Your task to perform on an android device: turn off airplane mode Image 0: 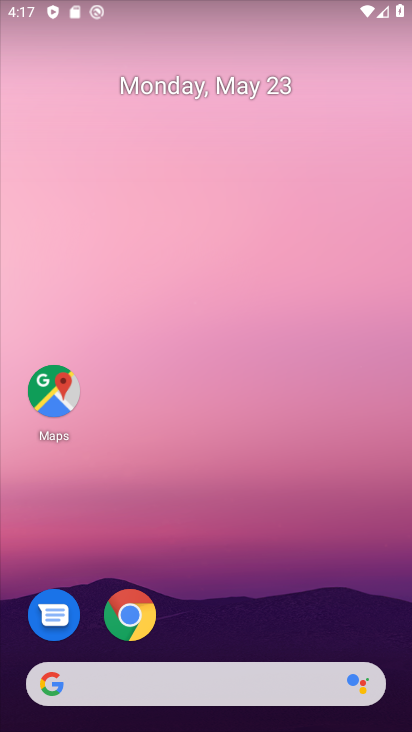
Step 0: drag from (220, 611) to (226, 87)
Your task to perform on an android device: turn off airplane mode Image 1: 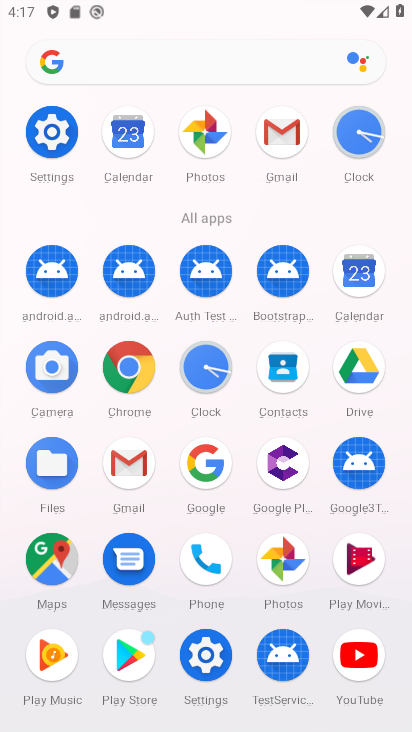
Step 1: click (60, 135)
Your task to perform on an android device: turn off airplane mode Image 2: 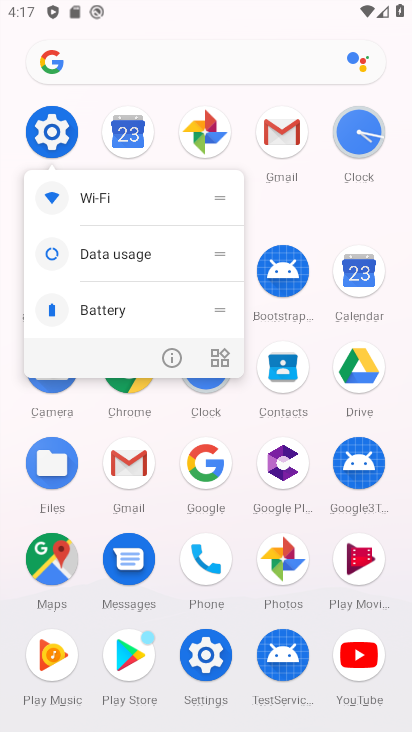
Step 2: click (53, 129)
Your task to perform on an android device: turn off airplane mode Image 3: 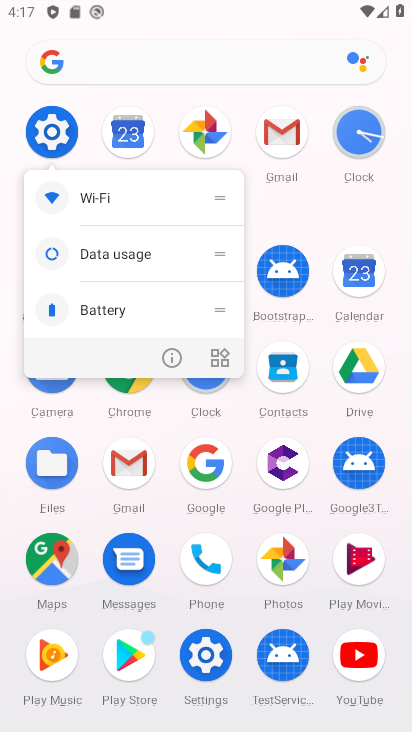
Step 3: click (56, 118)
Your task to perform on an android device: turn off airplane mode Image 4: 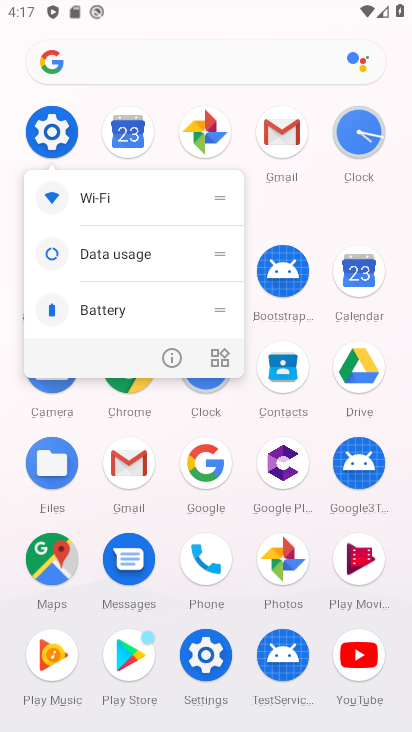
Step 4: click (45, 105)
Your task to perform on an android device: turn off airplane mode Image 5: 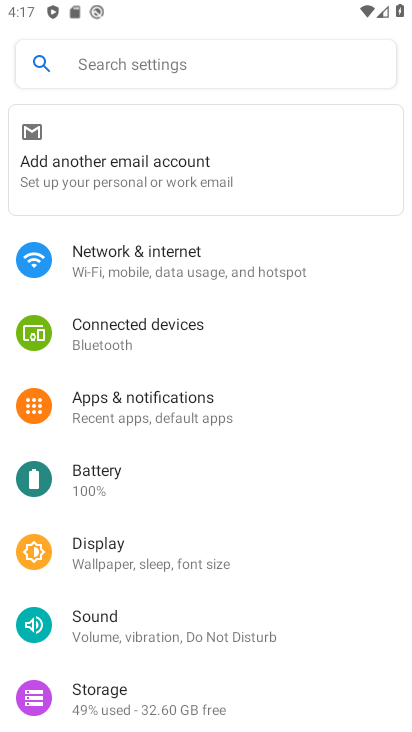
Step 5: click (223, 267)
Your task to perform on an android device: turn off airplane mode Image 6: 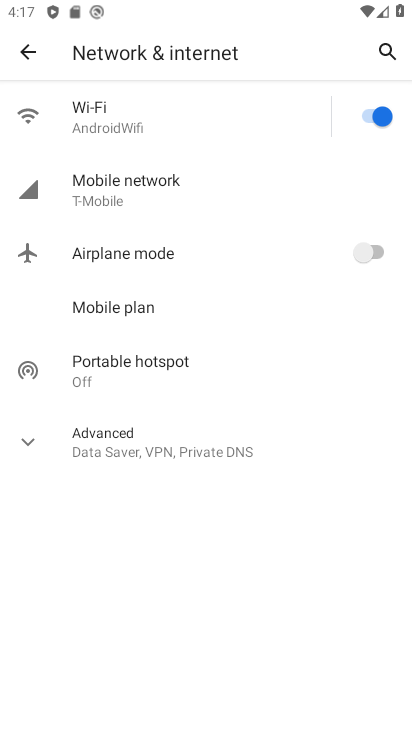
Step 6: task complete